Your task to perform on an android device: What's on my calendar tomorrow? Image 0: 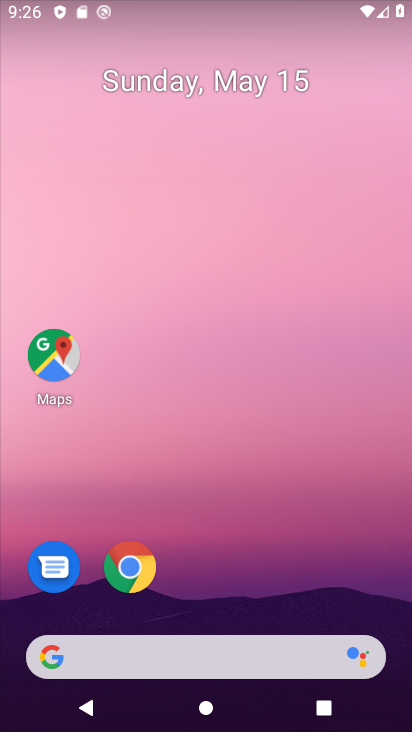
Step 0: drag from (286, 558) to (290, 91)
Your task to perform on an android device: What's on my calendar tomorrow? Image 1: 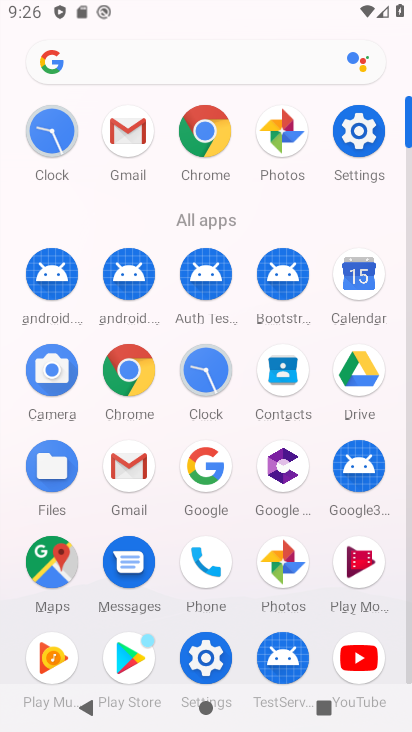
Step 1: click (351, 274)
Your task to perform on an android device: What's on my calendar tomorrow? Image 2: 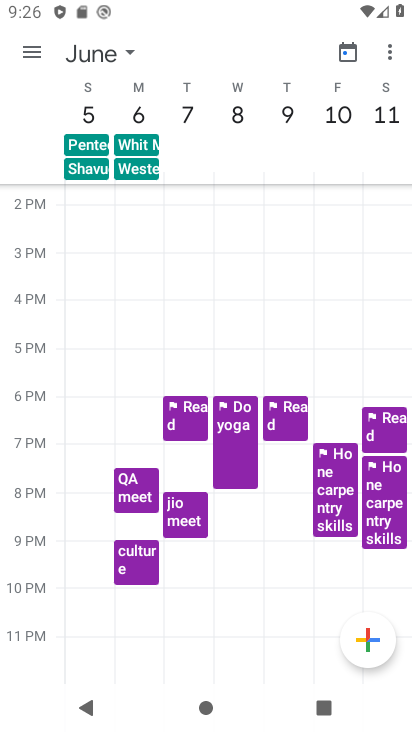
Step 2: click (133, 52)
Your task to perform on an android device: What's on my calendar tomorrow? Image 3: 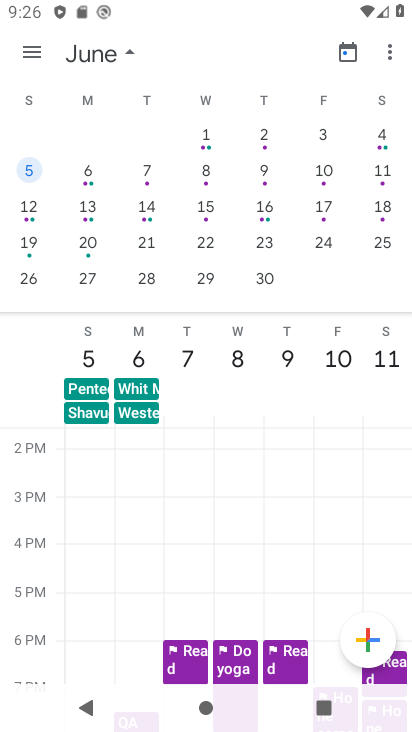
Step 3: drag from (118, 195) to (403, 295)
Your task to perform on an android device: What's on my calendar tomorrow? Image 4: 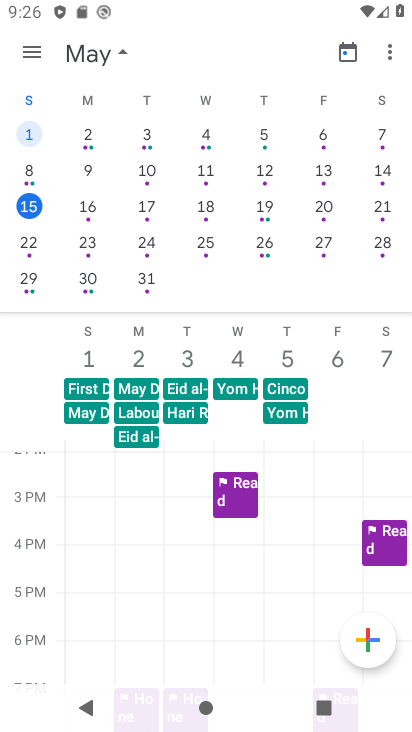
Step 4: click (88, 205)
Your task to perform on an android device: What's on my calendar tomorrow? Image 5: 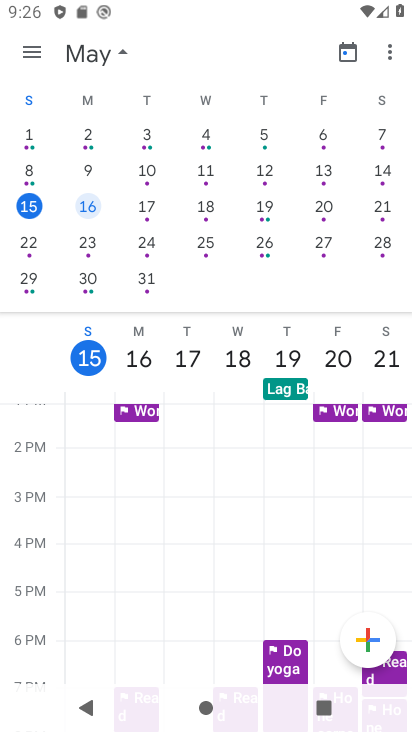
Step 5: click (33, 43)
Your task to perform on an android device: What's on my calendar tomorrow? Image 6: 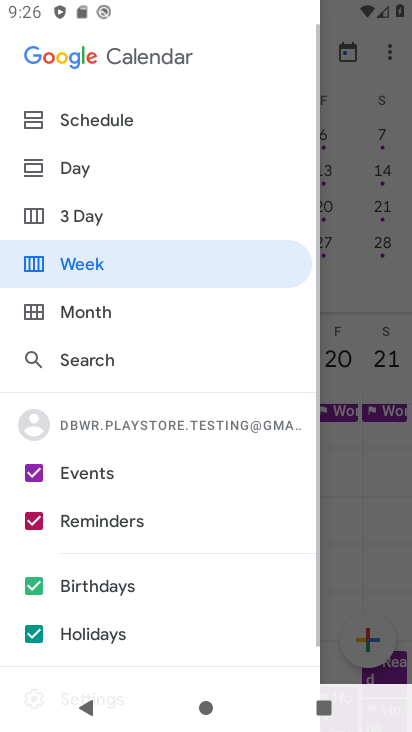
Step 6: click (98, 159)
Your task to perform on an android device: What's on my calendar tomorrow? Image 7: 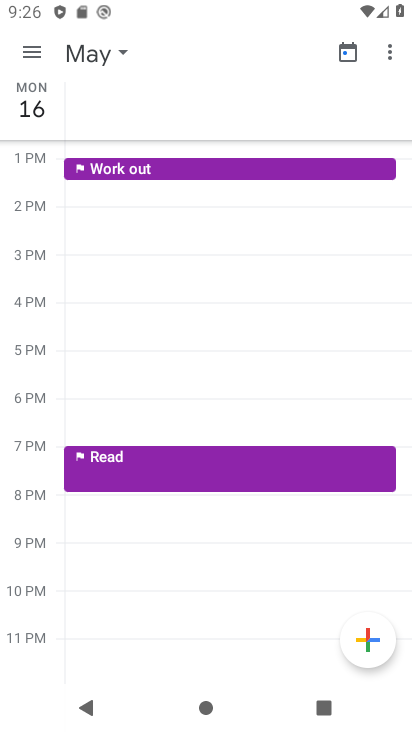
Step 7: task complete